Your task to perform on an android device: check the backup settings in the google photos Image 0: 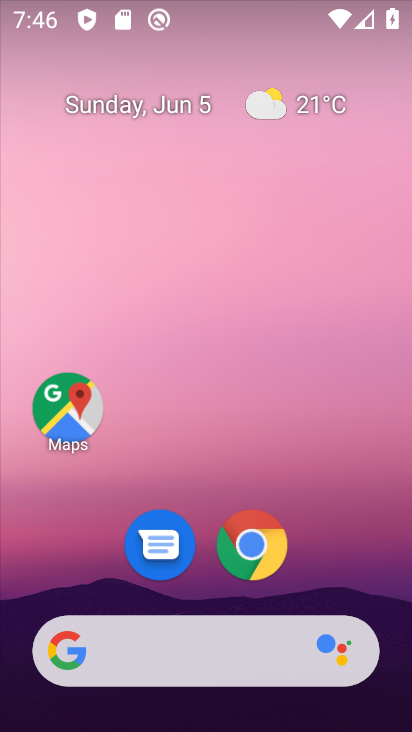
Step 0: drag from (379, 581) to (377, 124)
Your task to perform on an android device: check the backup settings in the google photos Image 1: 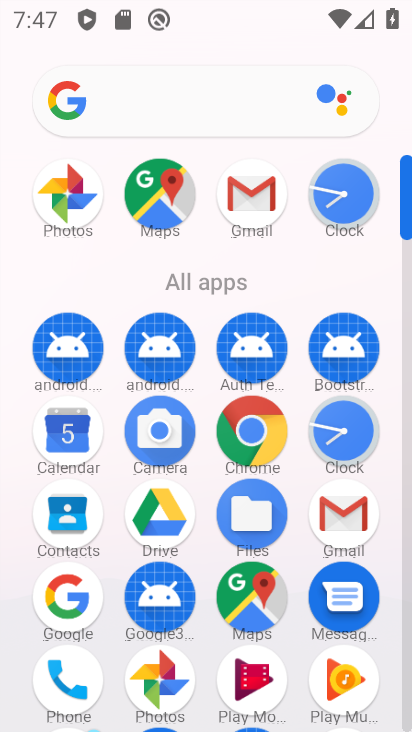
Step 1: drag from (391, 604) to (384, 438)
Your task to perform on an android device: check the backup settings in the google photos Image 2: 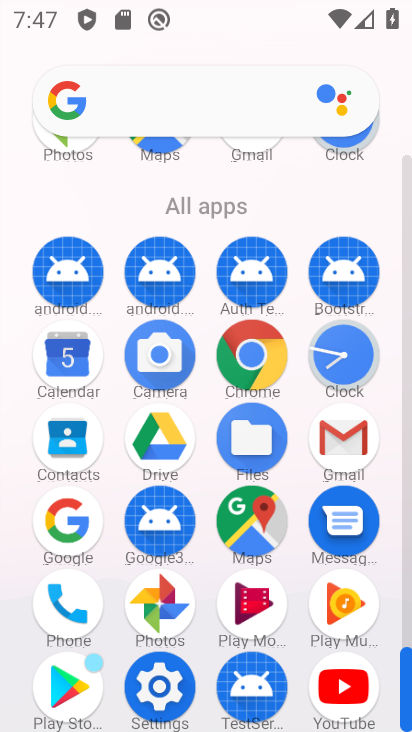
Step 2: click (168, 612)
Your task to perform on an android device: check the backup settings in the google photos Image 3: 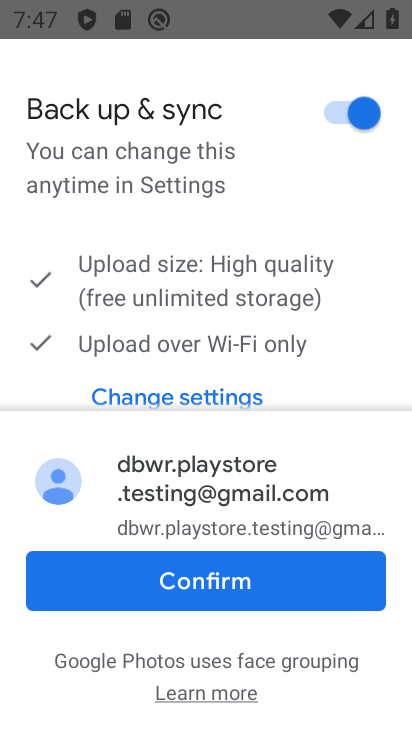
Step 3: click (267, 566)
Your task to perform on an android device: check the backup settings in the google photos Image 4: 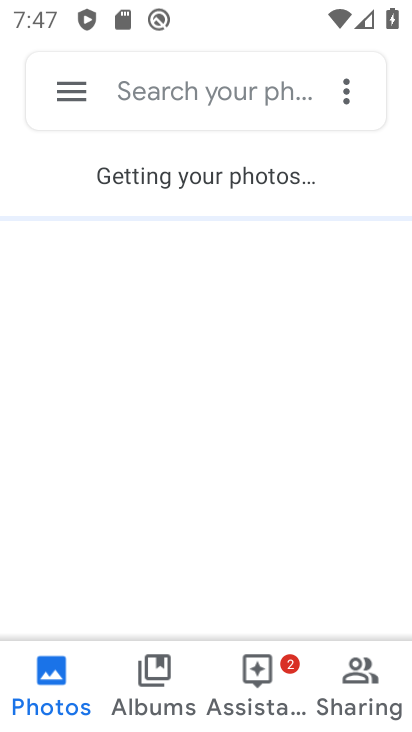
Step 4: click (77, 88)
Your task to perform on an android device: check the backup settings in the google photos Image 5: 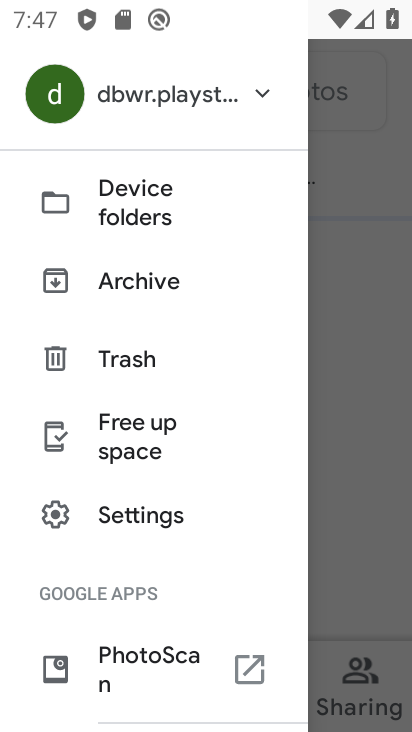
Step 5: click (180, 507)
Your task to perform on an android device: check the backup settings in the google photos Image 6: 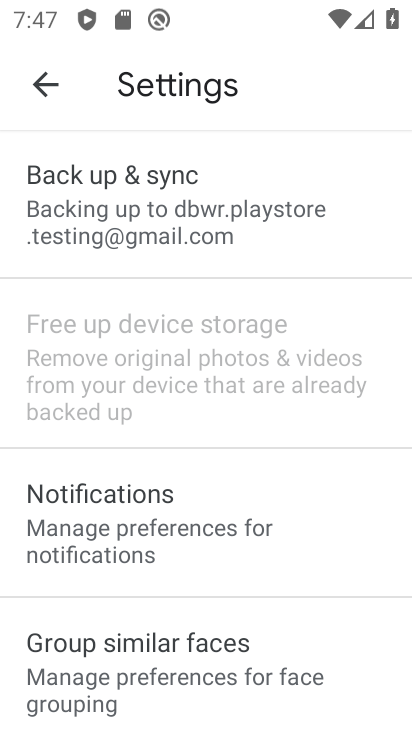
Step 6: click (194, 238)
Your task to perform on an android device: check the backup settings in the google photos Image 7: 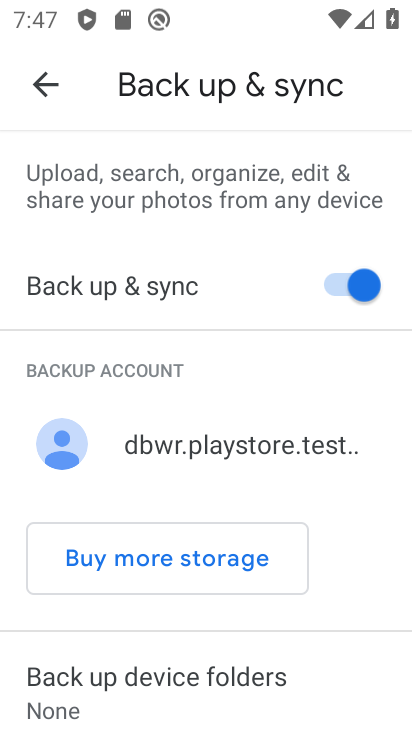
Step 7: task complete